Your task to perform on an android device: open sync settings in chrome Image 0: 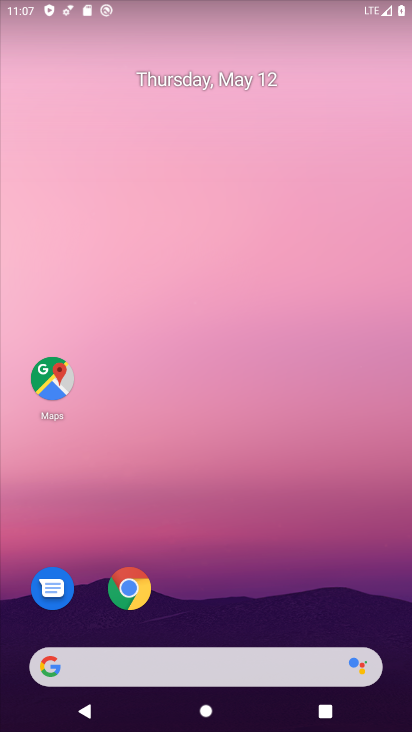
Step 0: drag from (335, 629) to (319, 152)
Your task to perform on an android device: open sync settings in chrome Image 1: 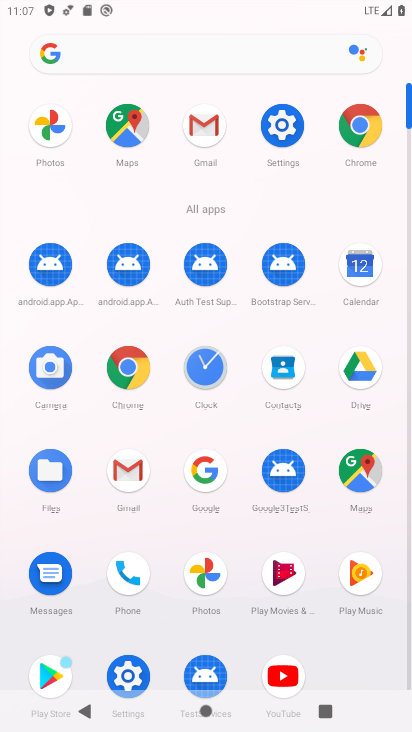
Step 1: click (352, 118)
Your task to perform on an android device: open sync settings in chrome Image 2: 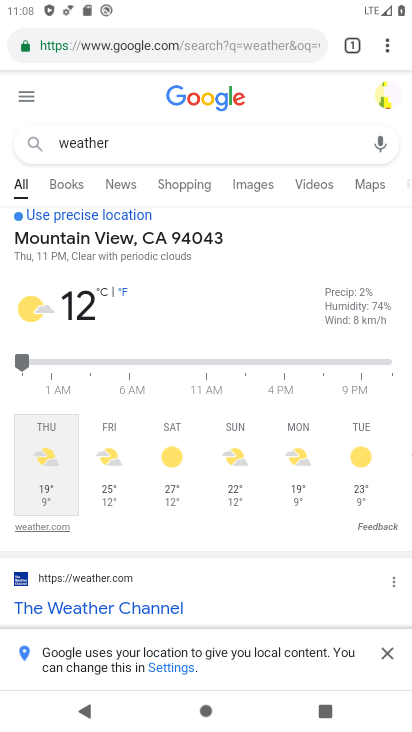
Step 2: drag from (393, 44) to (264, 514)
Your task to perform on an android device: open sync settings in chrome Image 3: 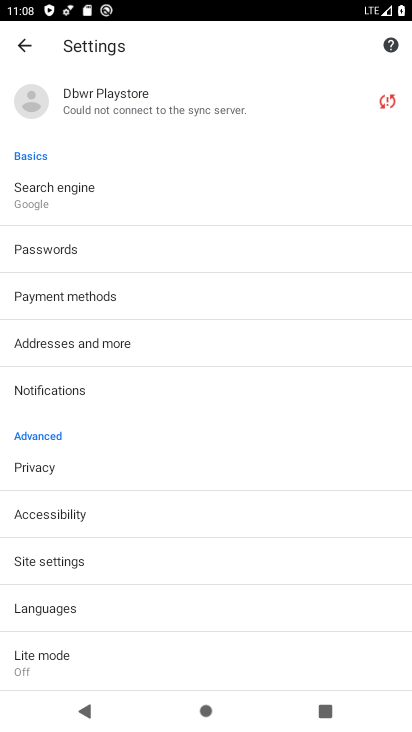
Step 3: click (137, 116)
Your task to perform on an android device: open sync settings in chrome Image 4: 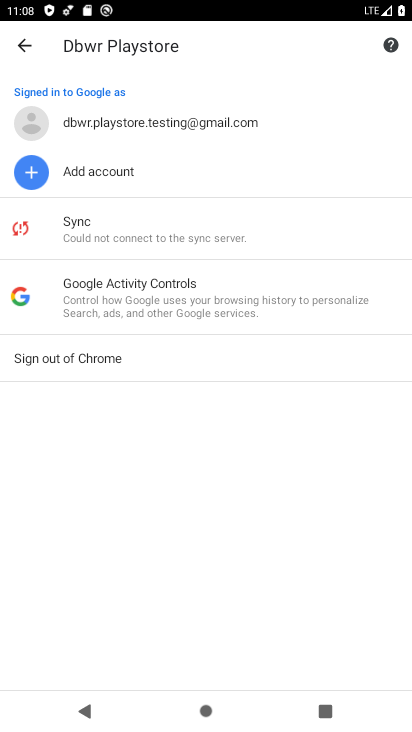
Step 4: click (133, 234)
Your task to perform on an android device: open sync settings in chrome Image 5: 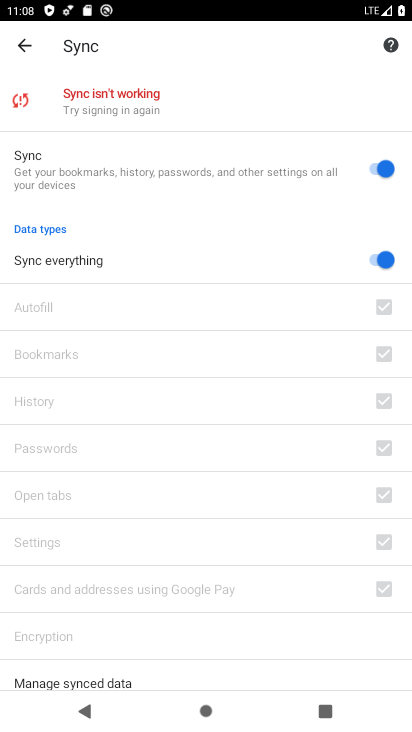
Step 5: task complete